Your task to perform on an android device: move an email to a new category in the gmail app Image 0: 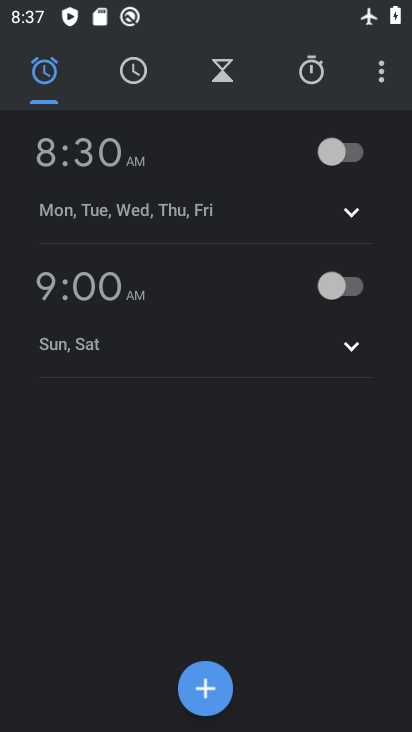
Step 0: press back button
Your task to perform on an android device: move an email to a new category in the gmail app Image 1: 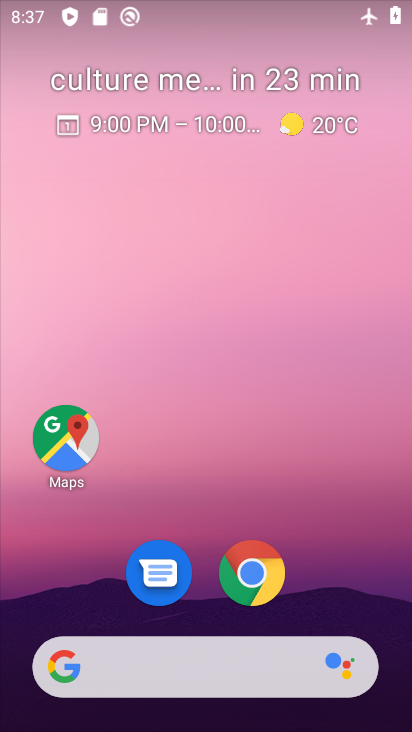
Step 1: drag from (298, 467) to (266, 80)
Your task to perform on an android device: move an email to a new category in the gmail app Image 2: 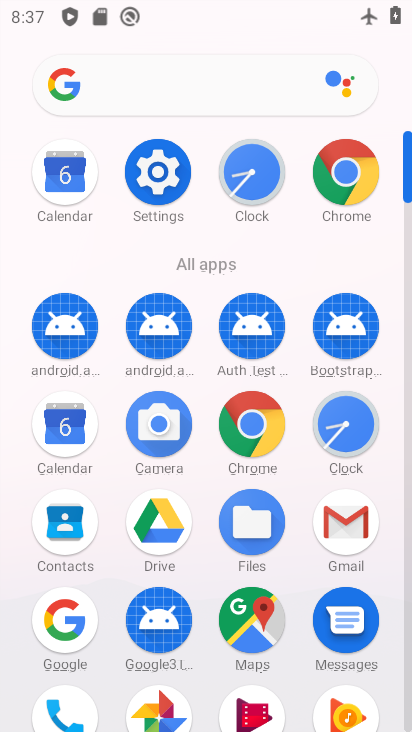
Step 2: click (350, 507)
Your task to perform on an android device: move an email to a new category in the gmail app Image 3: 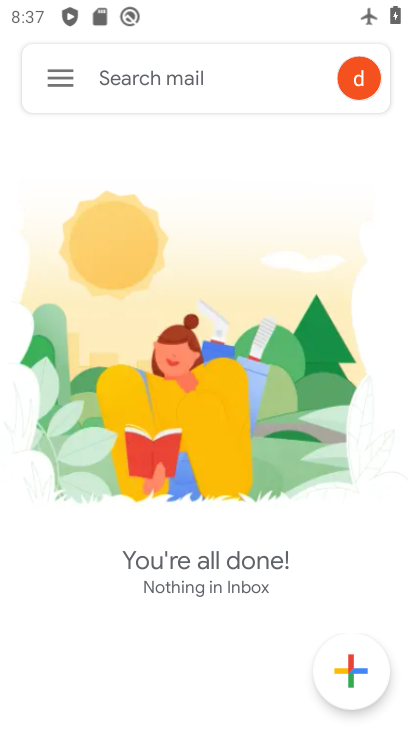
Step 3: click (35, 68)
Your task to perform on an android device: move an email to a new category in the gmail app Image 4: 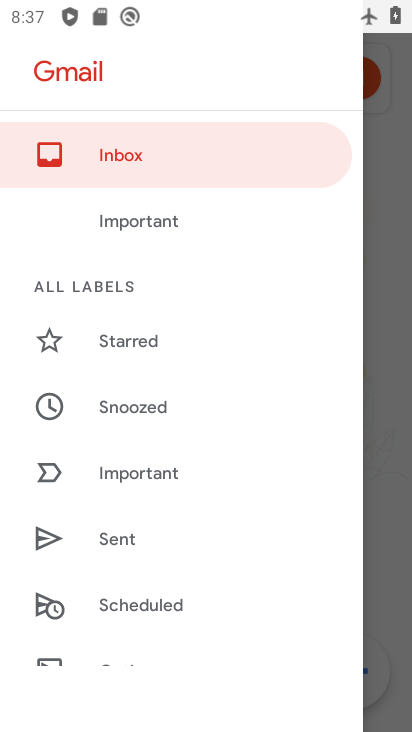
Step 4: drag from (145, 631) to (193, 244)
Your task to perform on an android device: move an email to a new category in the gmail app Image 5: 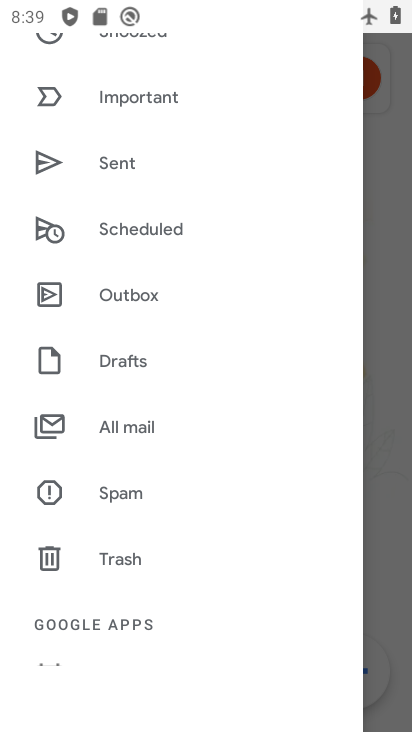
Step 5: drag from (175, 129) to (226, 111)
Your task to perform on an android device: move an email to a new category in the gmail app Image 6: 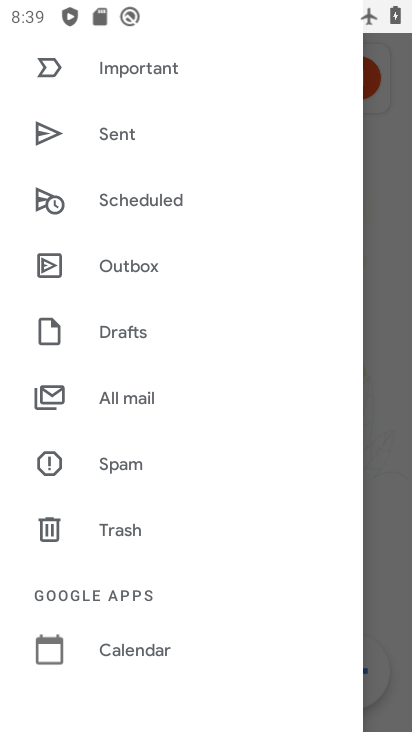
Step 6: click (144, 401)
Your task to perform on an android device: move an email to a new category in the gmail app Image 7: 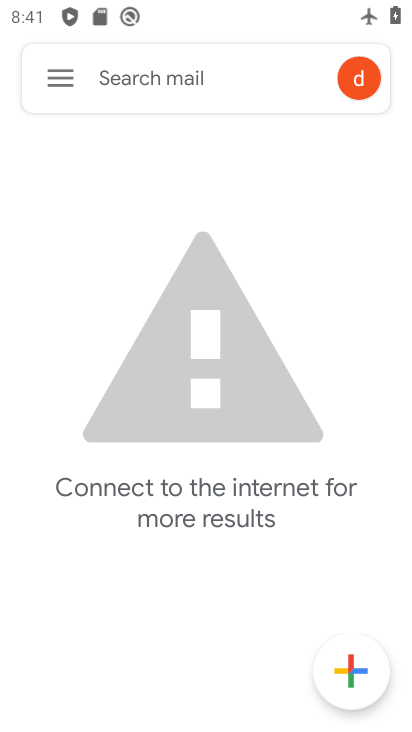
Step 7: drag from (307, 14) to (307, 462)
Your task to perform on an android device: move an email to a new category in the gmail app Image 8: 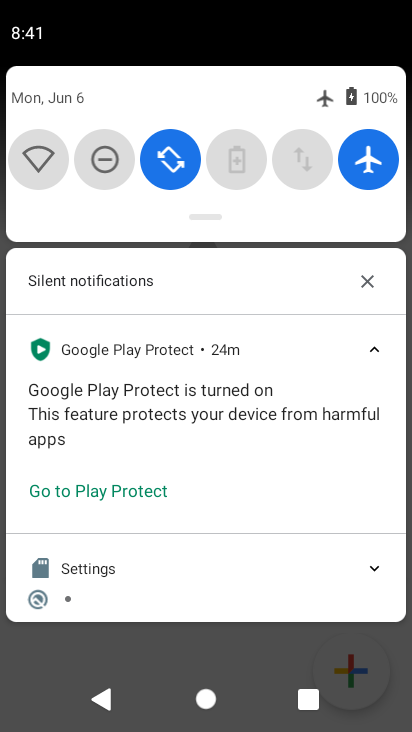
Step 8: click (358, 154)
Your task to perform on an android device: move an email to a new category in the gmail app Image 9: 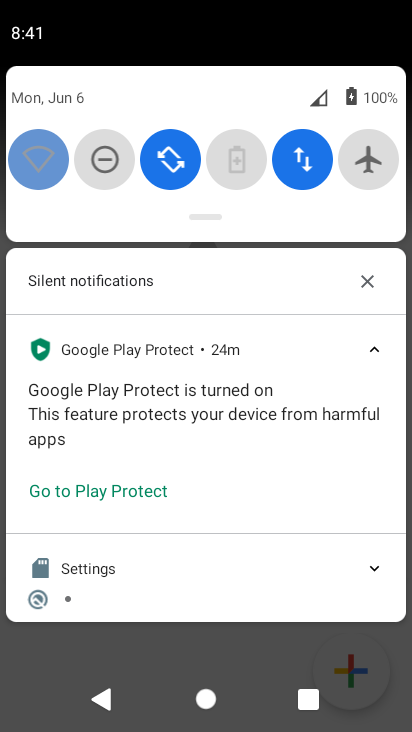
Step 9: click (230, 642)
Your task to perform on an android device: move an email to a new category in the gmail app Image 10: 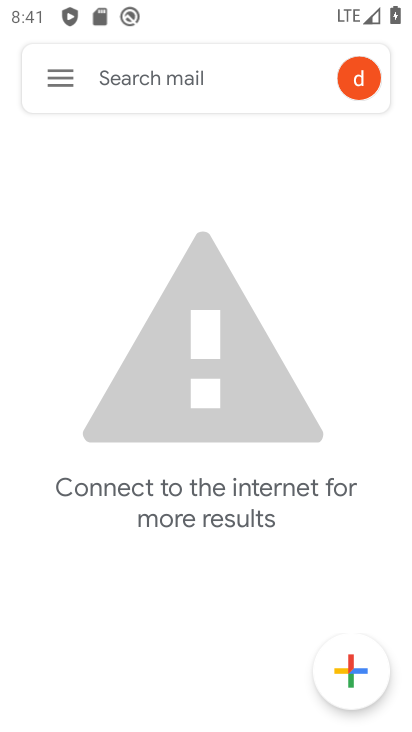
Step 10: click (54, 79)
Your task to perform on an android device: move an email to a new category in the gmail app Image 11: 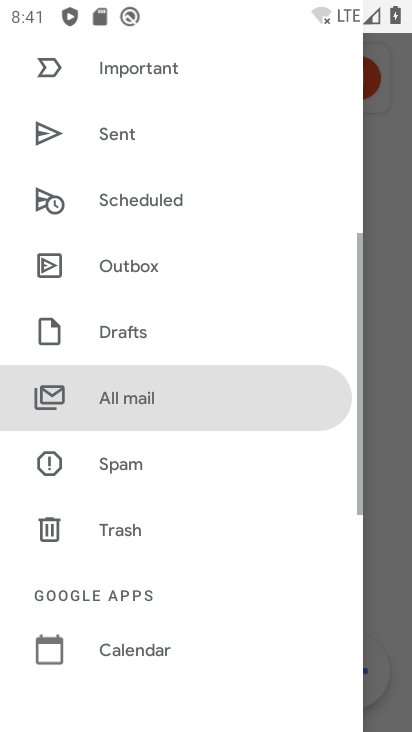
Step 11: click (147, 396)
Your task to perform on an android device: move an email to a new category in the gmail app Image 12: 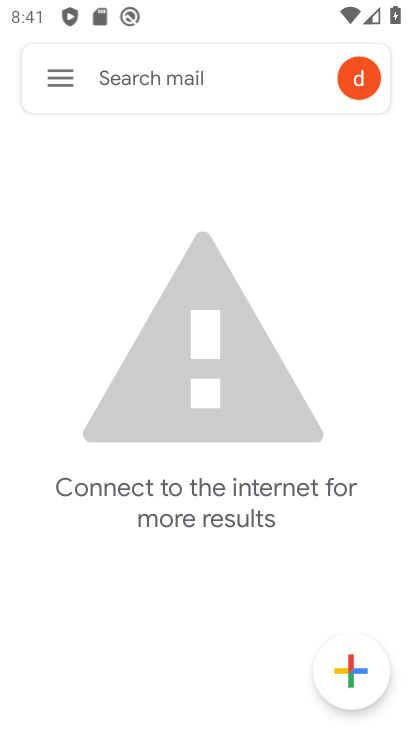
Step 12: task complete